Your task to perform on an android device: Go to Amazon Image 0: 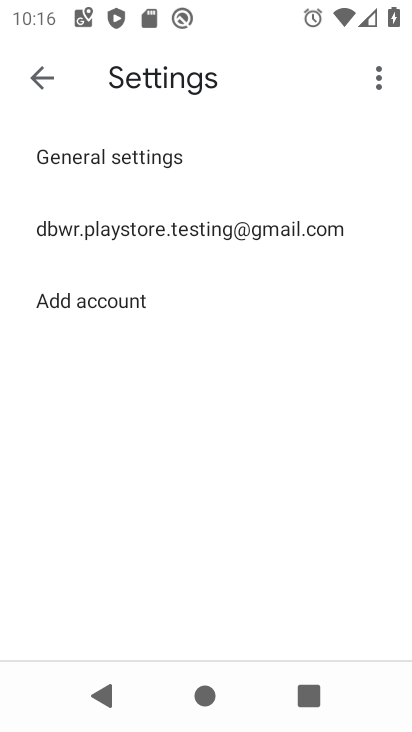
Step 0: press home button
Your task to perform on an android device: Go to Amazon Image 1: 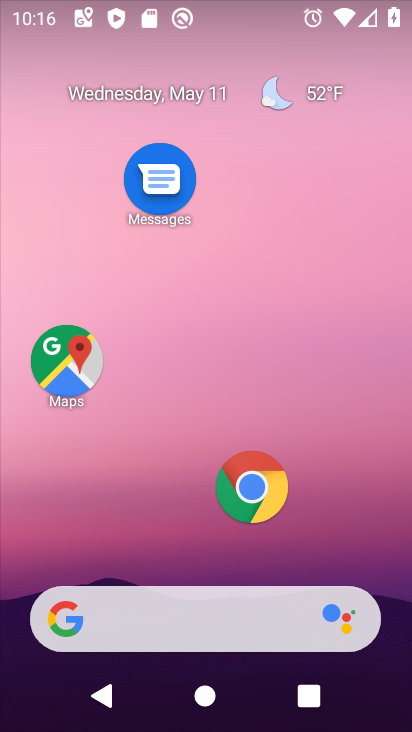
Step 1: click (231, 494)
Your task to perform on an android device: Go to Amazon Image 2: 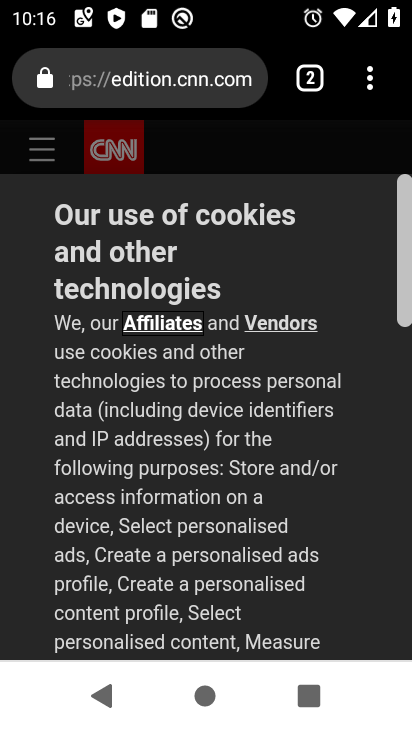
Step 2: click (300, 90)
Your task to perform on an android device: Go to Amazon Image 3: 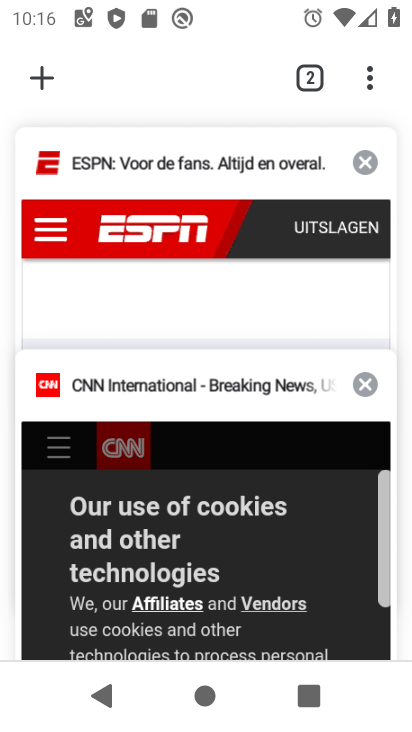
Step 3: click (26, 74)
Your task to perform on an android device: Go to Amazon Image 4: 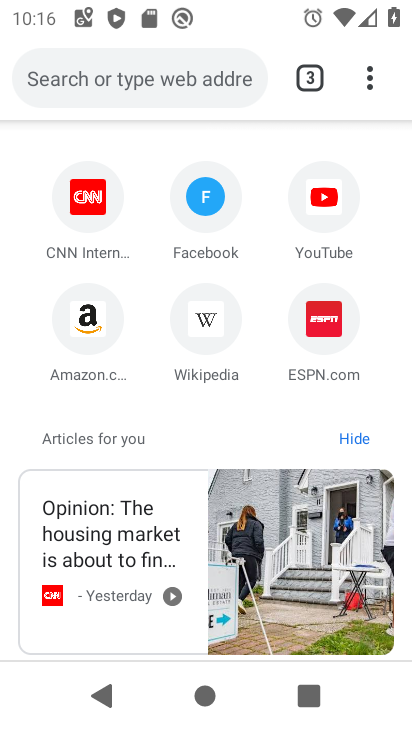
Step 4: click (102, 309)
Your task to perform on an android device: Go to Amazon Image 5: 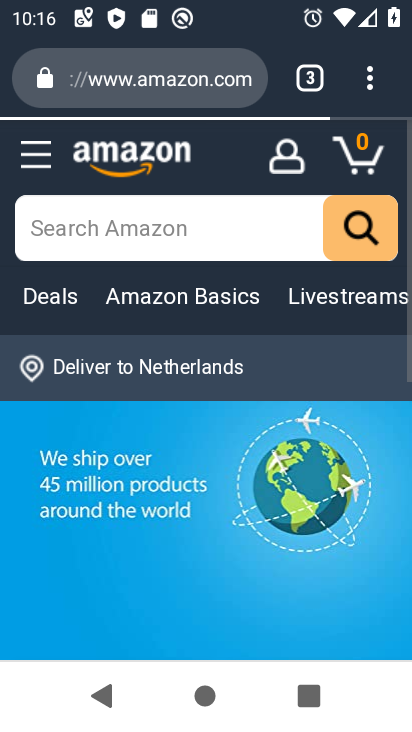
Step 5: task complete